Your task to perform on an android device: make emails show in primary in the gmail app Image 0: 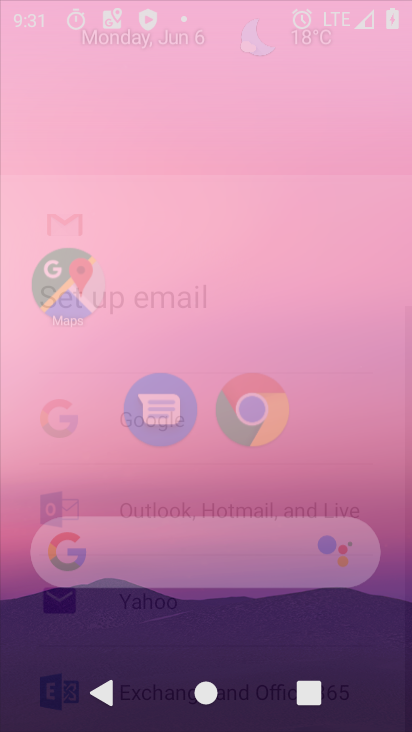
Step 0: click (238, 181)
Your task to perform on an android device: make emails show in primary in the gmail app Image 1: 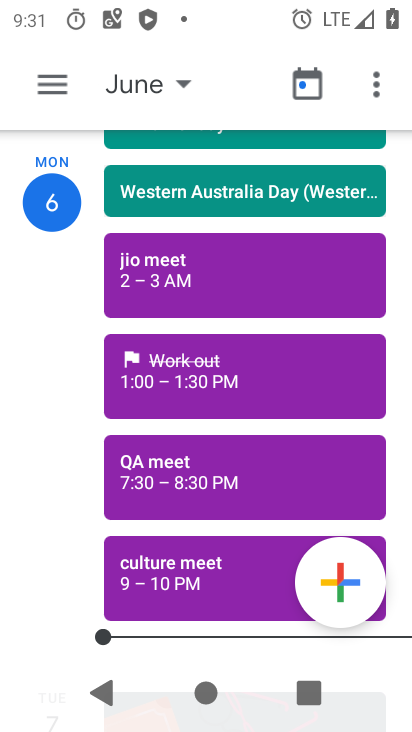
Step 1: press home button
Your task to perform on an android device: make emails show in primary in the gmail app Image 2: 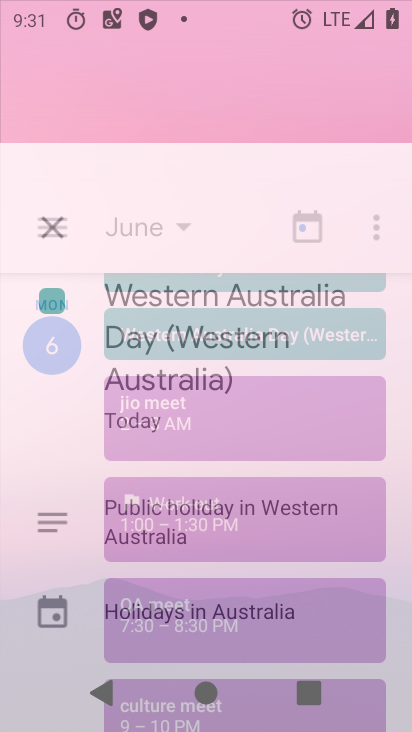
Step 2: drag from (165, 555) to (211, 148)
Your task to perform on an android device: make emails show in primary in the gmail app Image 3: 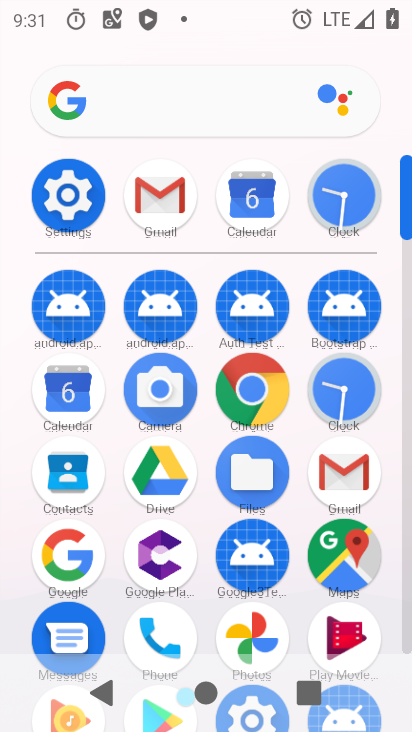
Step 3: click (349, 463)
Your task to perform on an android device: make emails show in primary in the gmail app Image 4: 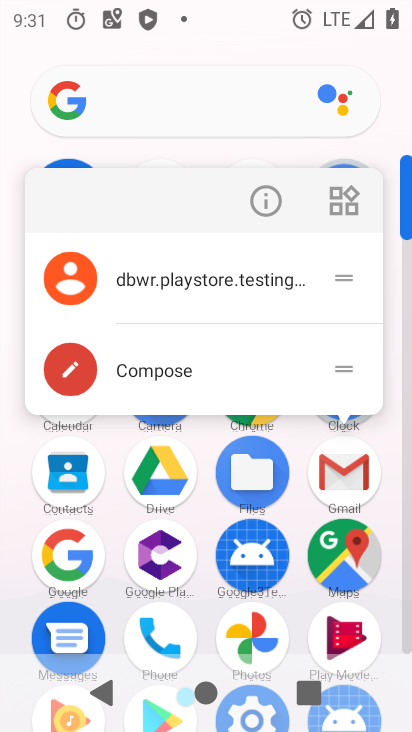
Step 4: click (265, 202)
Your task to perform on an android device: make emails show in primary in the gmail app Image 5: 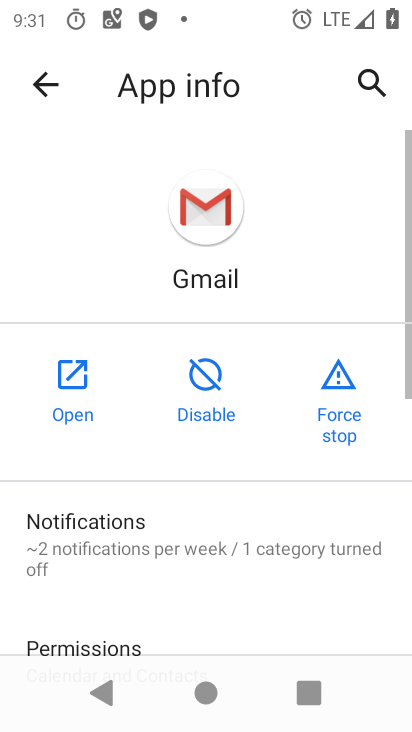
Step 5: click (68, 367)
Your task to perform on an android device: make emails show in primary in the gmail app Image 6: 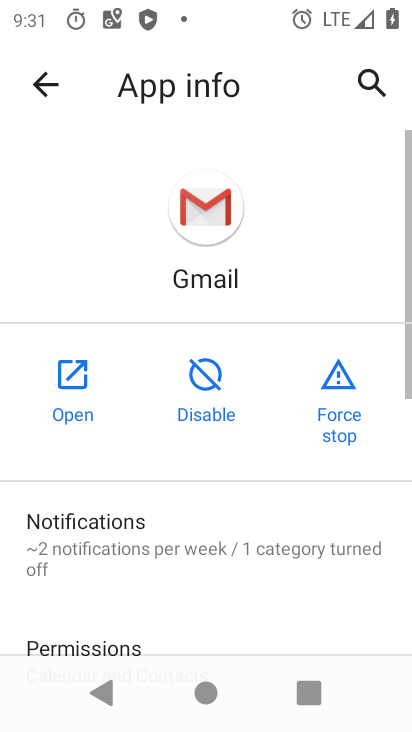
Step 6: click (68, 367)
Your task to perform on an android device: make emails show in primary in the gmail app Image 7: 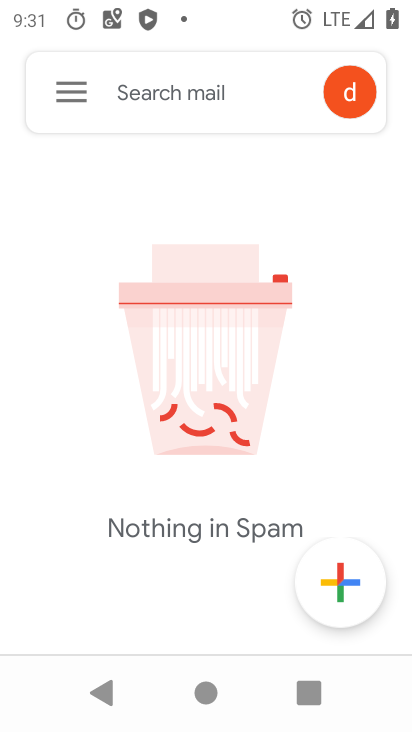
Step 7: click (67, 100)
Your task to perform on an android device: make emails show in primary in the gmail app Image 8: 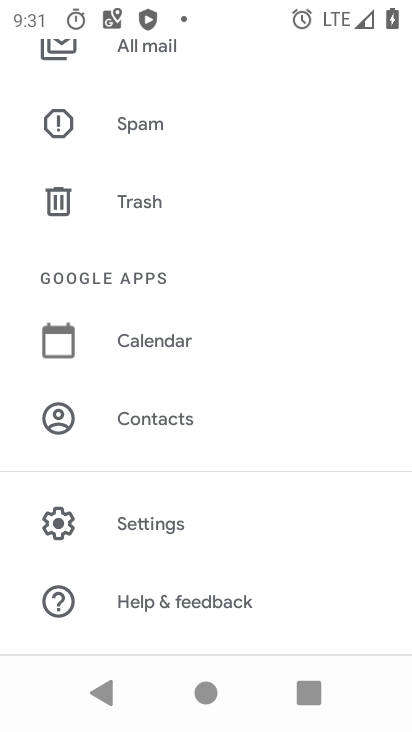
Step 8: drag from (135, 498) to (209, 116)
Your task to perform on an android device: make emails show in primary in the gmail app Image 9: 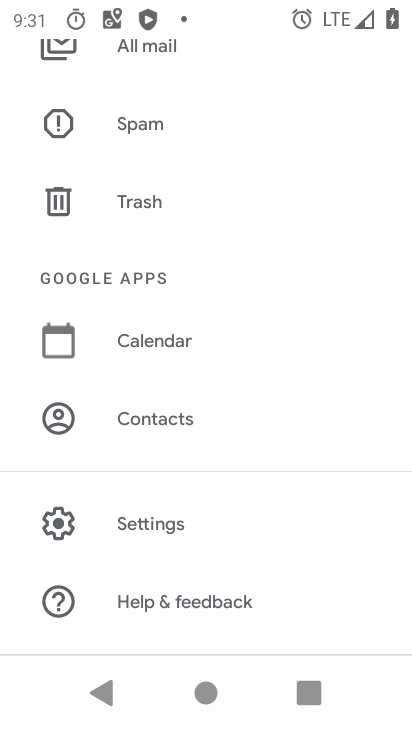
Step 9: drag from (210, 87) to (221, 665)
Your task to perform on an android device: make emails show in primary in the gmail app Image 10: 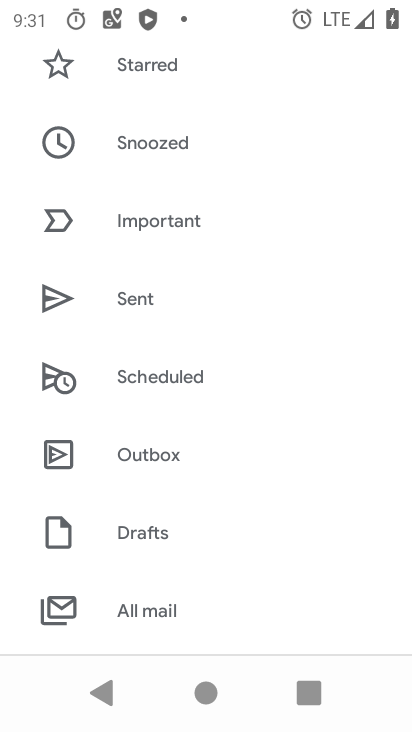
Step 10: drag from (161, 235) to (230, 708)
Your task to perform on an android device: make emails show in primary in the gmail app Image 11: 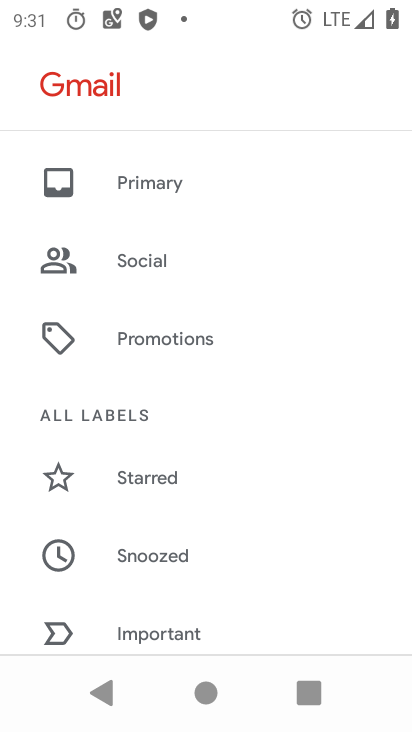
Step 11: click (165, 190)
Your task to perform on an android device: make emails show in primary in the gmail app Image 12: 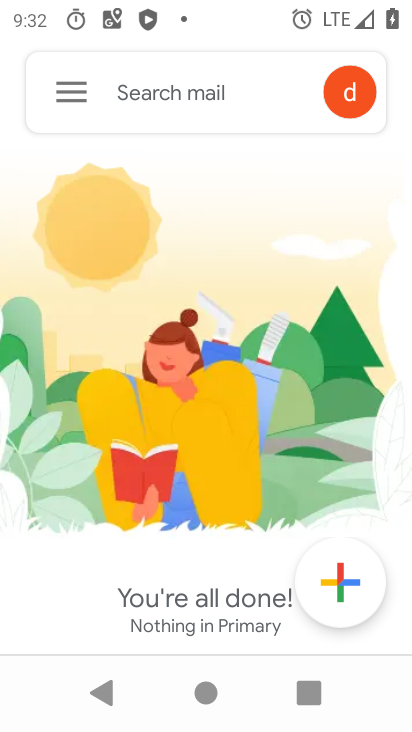
Step 12: task complete